Your task to perform on an android device: Search for "The Dispatcher" by John Scalzi on Goodreads Image 0: 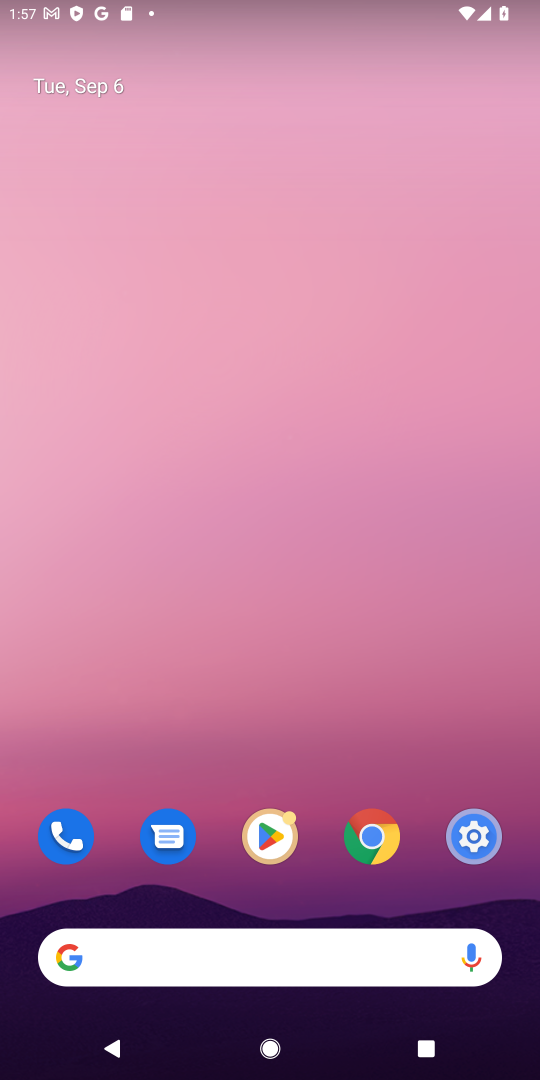
Step 0: click (282, 935)
Your task to perform on an android device: Search for "The Dispatcher" by John Scalzi on Goodreads Image 1: 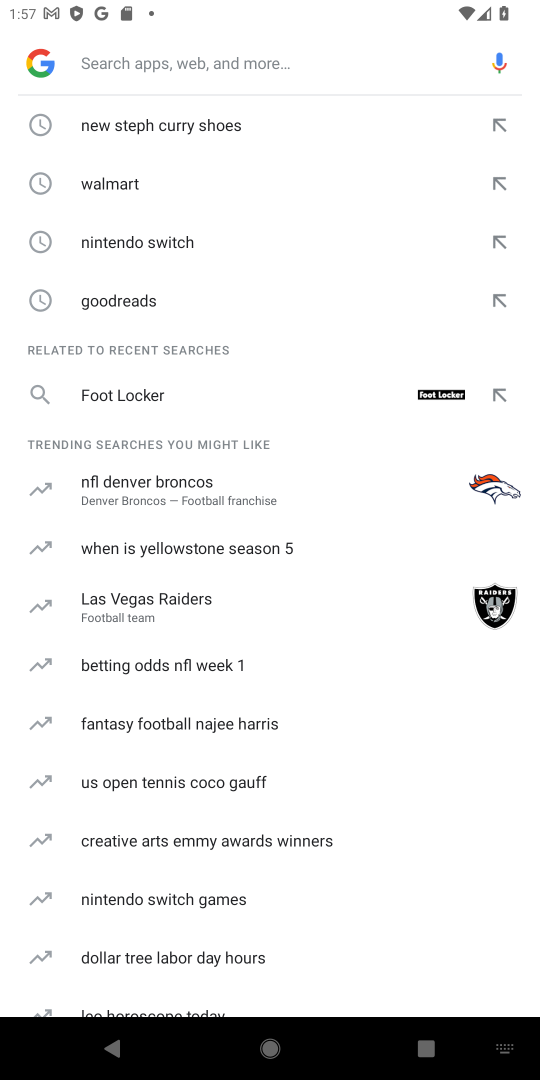
Step 1: type "goodreads"
Your task to perform on an android device: Search for "The Dispatcher" by John Scalzi on Goodreads Image 2: 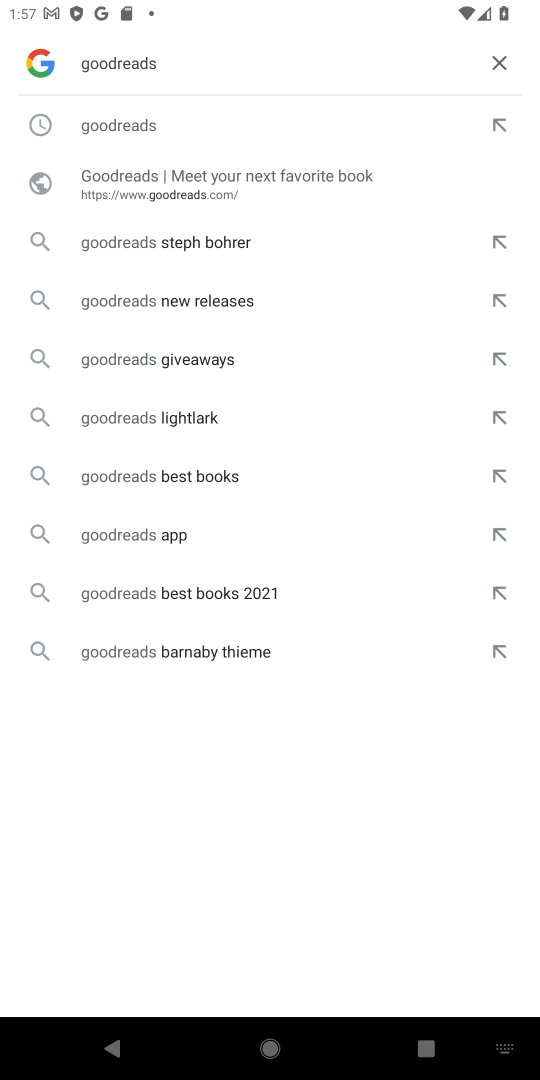
Step 2: click (142, 174)
Your task to perform on an android device: Search for "The Dispatcher" by John Scalzi on Goodreads Image 3: 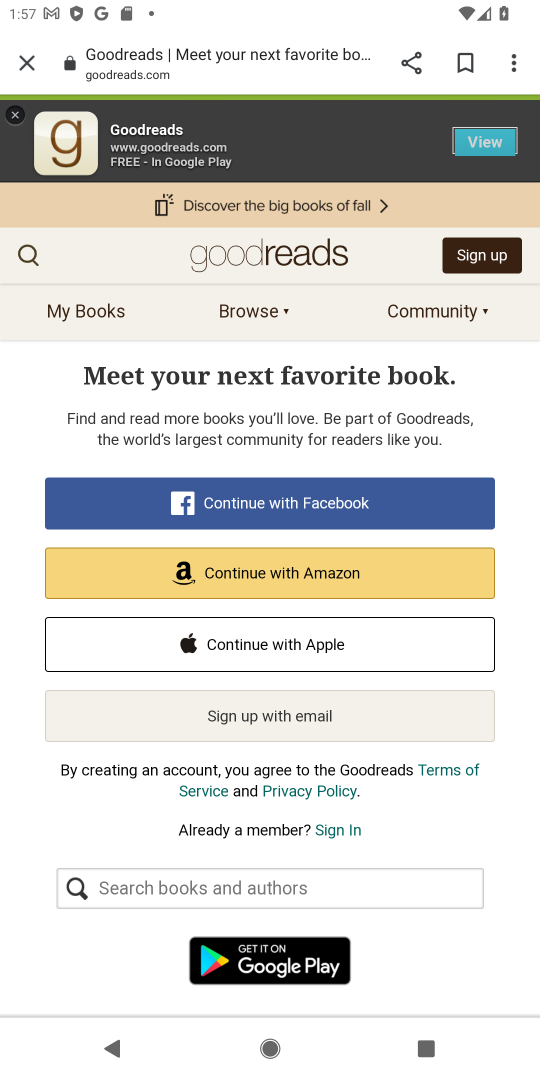
Step 3: click (29, 254)
Your task to perform on an android device: Search for "The Dispatcher" by John Scalzi on Goodreads Image 4: 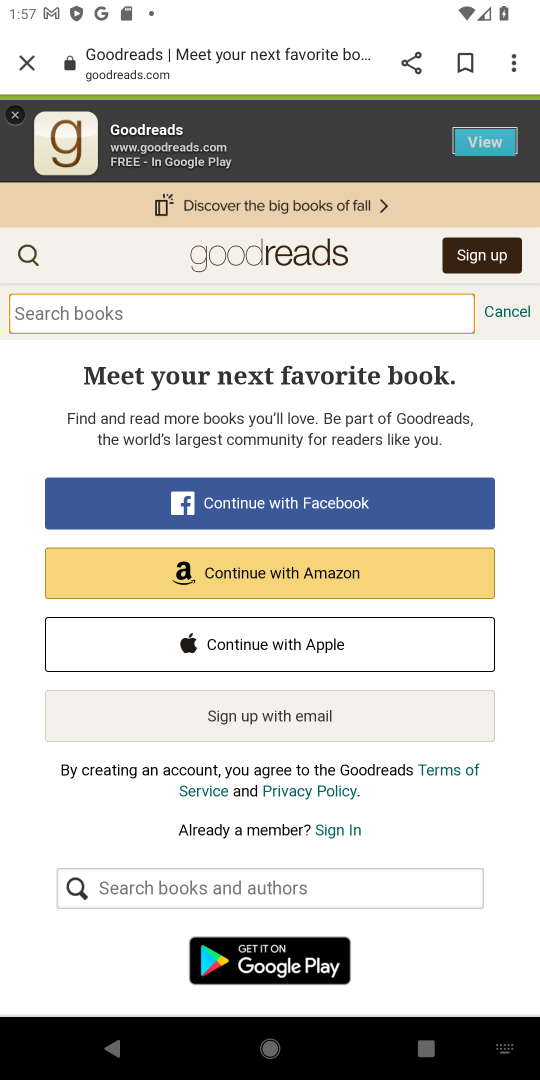
Step 4: type "The Dispatcher by John Scalzi"
Your task to perform on an android device: Search for "The Dispatcher" by John Scalzi on Goodreads Image 5: 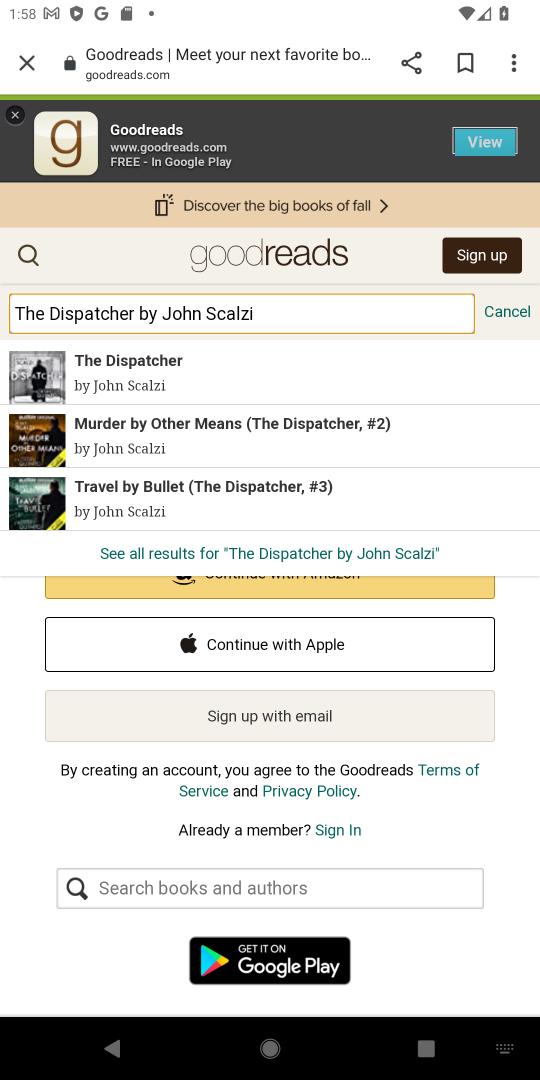
Step 5: click (270, 558)
Your task to perform on an android device: Search for "The Dispatcher" by John Scalzi on Goodreads Image 6: 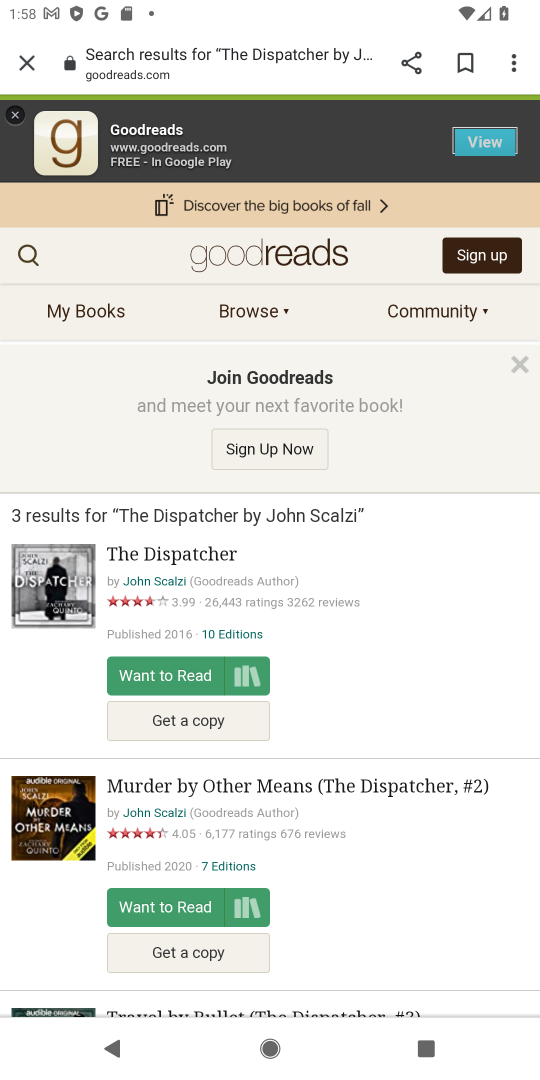
Step 6: task complete